Your task to perform on an android device: Go to Reddit.com Image 0: 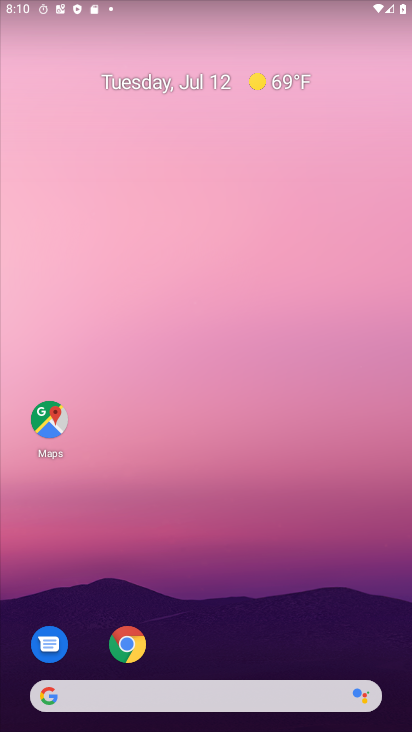
Step 0: press home button
Your task to perform on an android device: Go to Reddit.com Image 1: 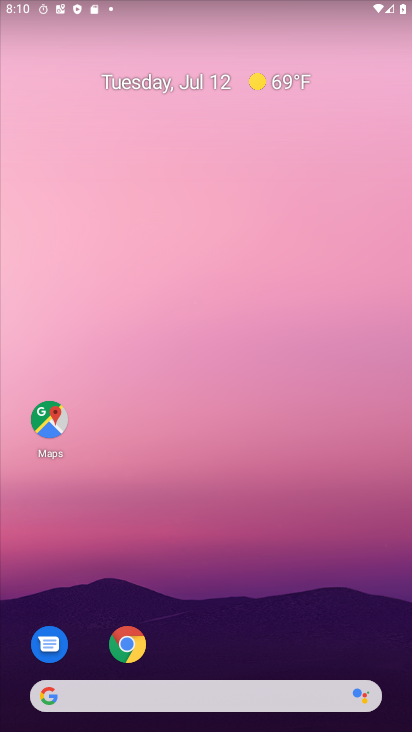
Step 1: click (126, 637)
Your task to perform on an android device: Go to Reddit.com Image 2: 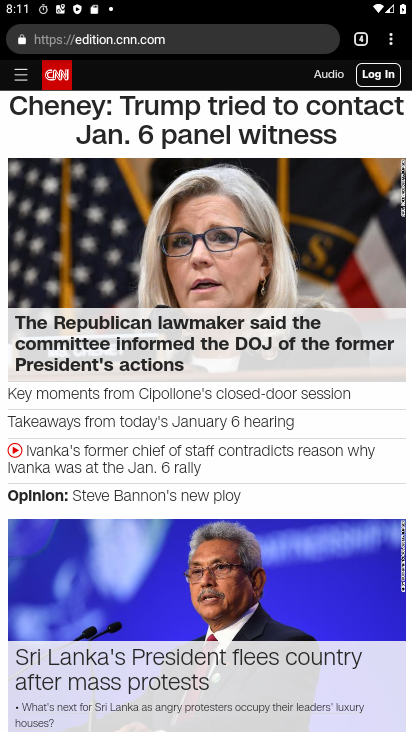
Step 2: click (358, 41)
Your task to perform on an android device: Go to Reddit.com Image 3: 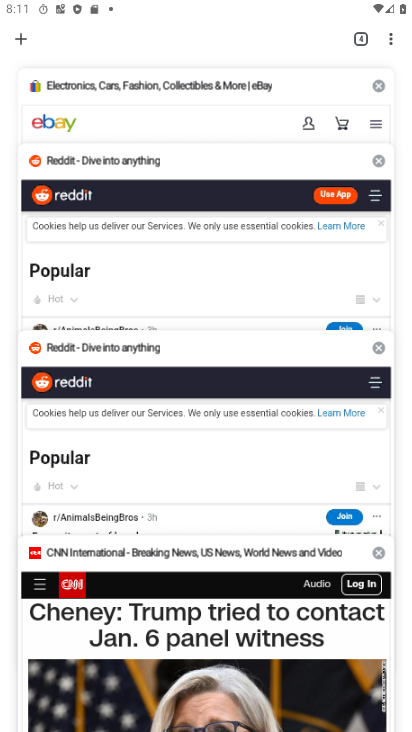
Step 3: click (134, 275)
Your task to perform on an android device: Go to Reddit.com Image 4: 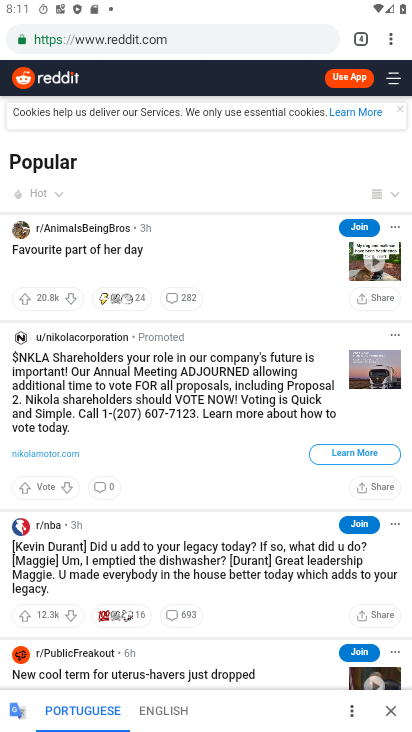
Step 4: task complete